Your task to perform on an android device: Open the phone app and click the voicemail tab. Image 0: 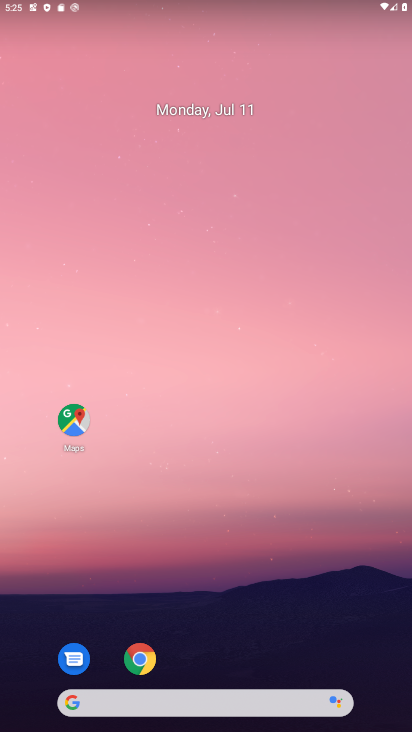
Step 0: drag from (380, 630) to (346, 122)
Your task to perform on an android device: Open the phone app and click the voicemail tab. Image 1: 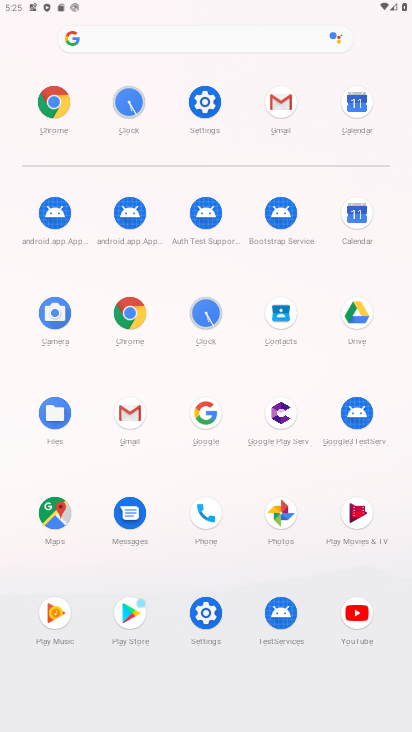
Step 1: click (202, 512)
Your task to perform on an android device: Open the phone app and click the voicemail tab. Image 2: 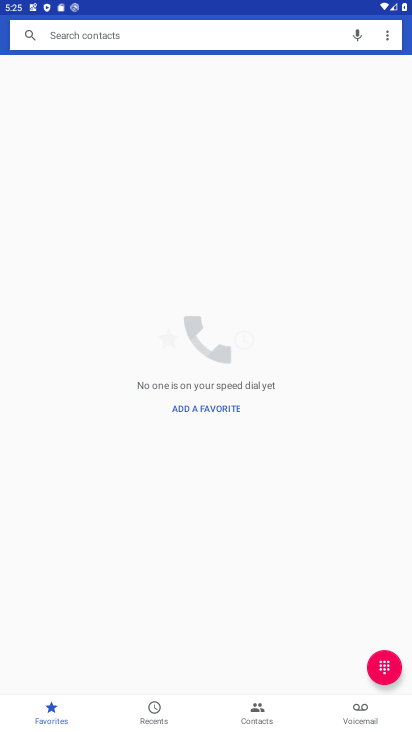
Step 2: click (366, 721)
Your task to perform on an android device: Open the phone app and click the voicemail tab. Image 3: 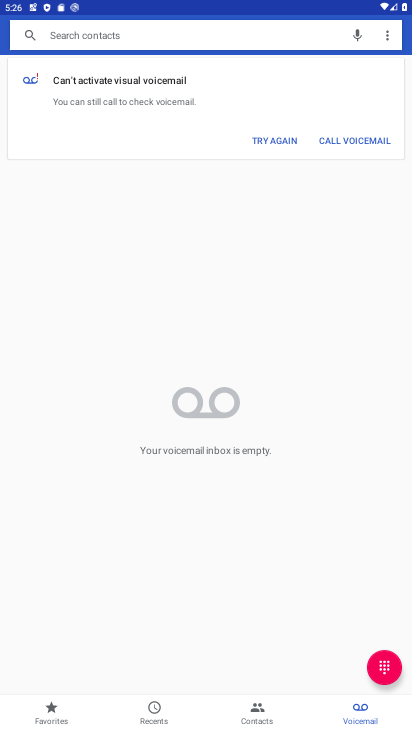
Step 3: task complete